Your task to perform on an android device: When is my next meeting? Image 0: 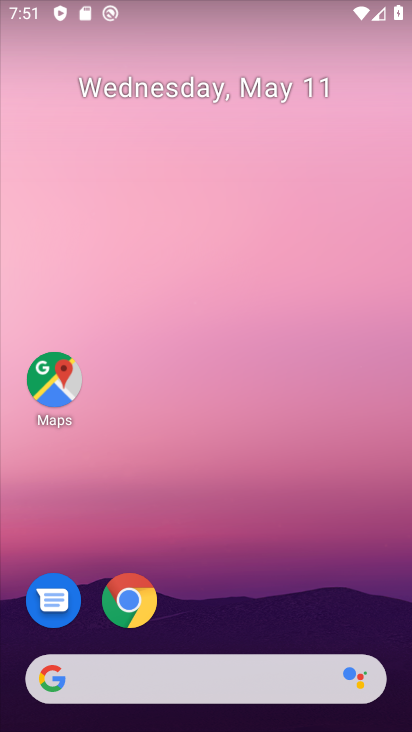
Step 0: drag from (222, 623) to (190, 34)
Your task to perform on an android device: When is my next meeting? Image 1: 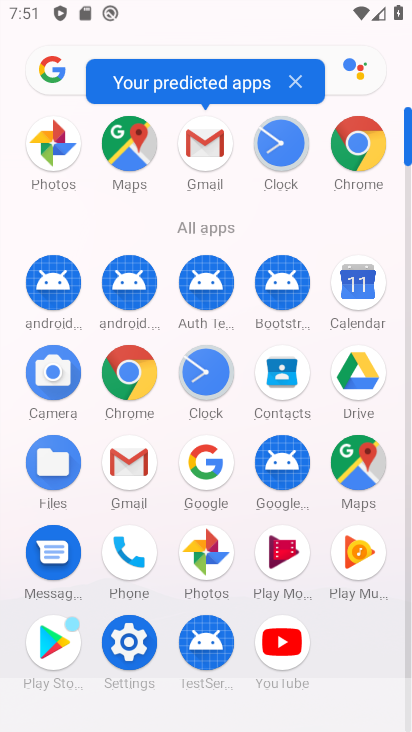
Step 1: click (350, 287)
Your task to perform on an android device: When is my next meeting? Image 2: 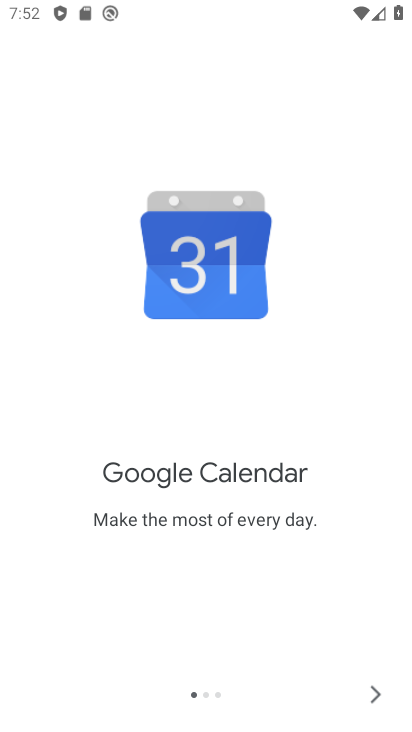
Step 2: click (372, 699)
Your task to perform on an android device: When is my next meeting? Image 3: 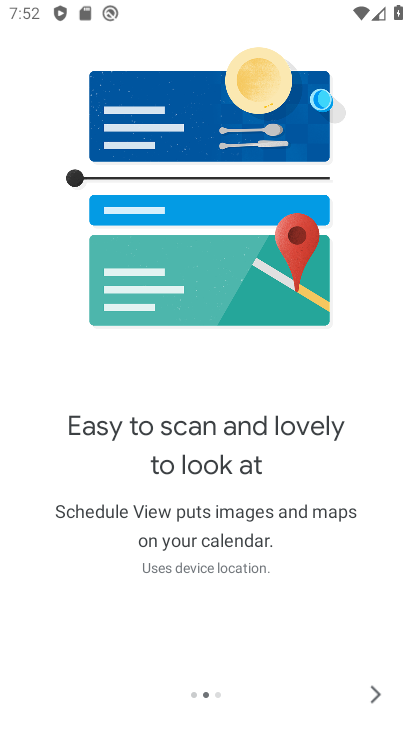
Step 3: click (372, 699)
Your task to perform on an android device: When is my next meeting? Image 4: 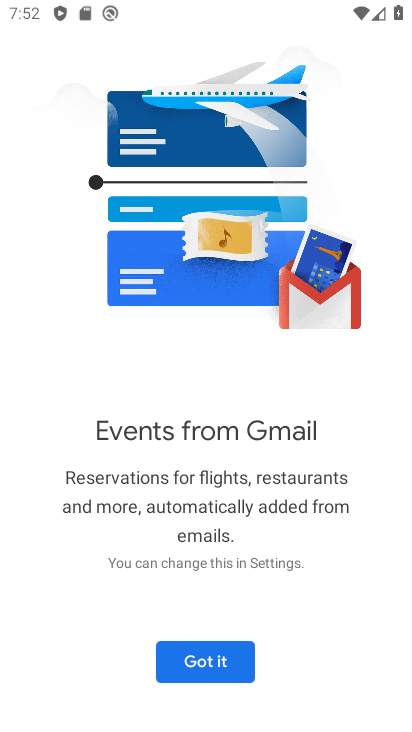
Step 4: click (252, 680)
Your task to perform on an android device: When is my next meeting? Image 5: 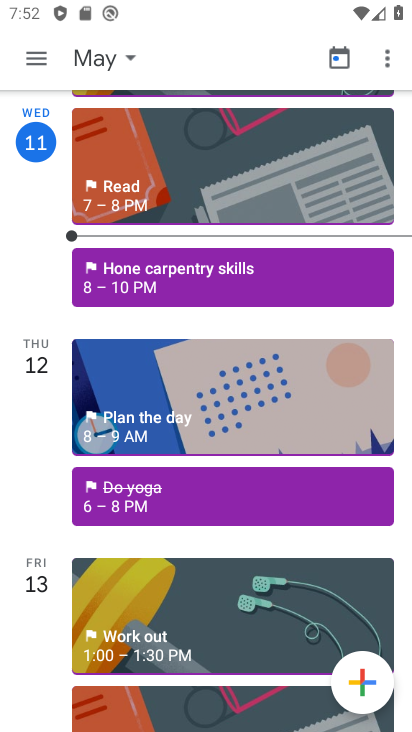
Step 5: click (21, 557)
Your task to perform on an android device: When is my next meeting? Image 6: 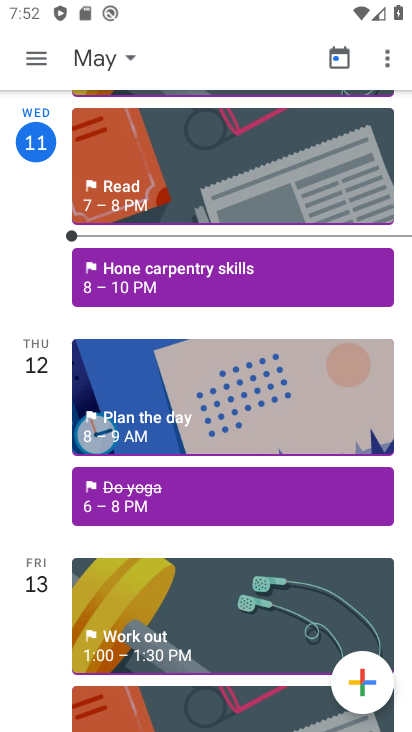
Step 6: click (37, 589)
Your task to perform on an android device: When is my next meeting? Image 7: 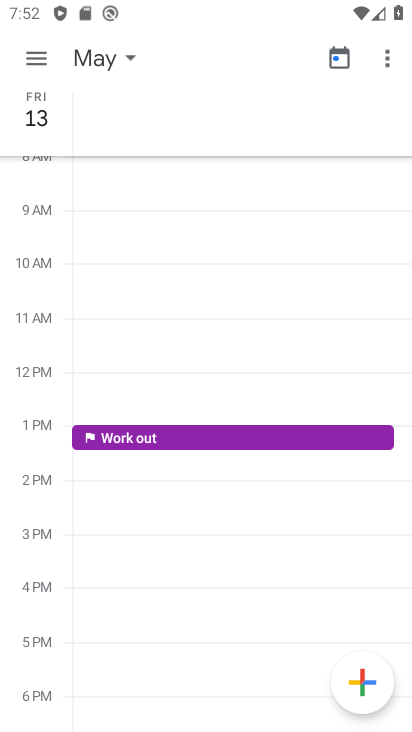
Step 7: task complete